Your task to perform on an android device: Open battery settings Image 0: 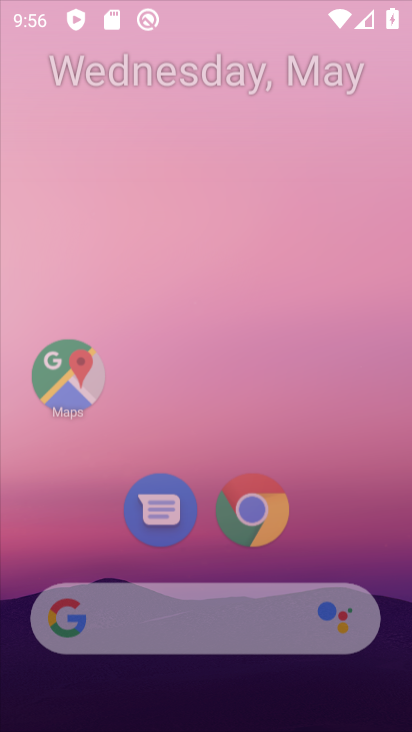
Step 0: drag from (278, 471) to (264, 146)
Your task to perform on an android device: Open battery settings Image 1: 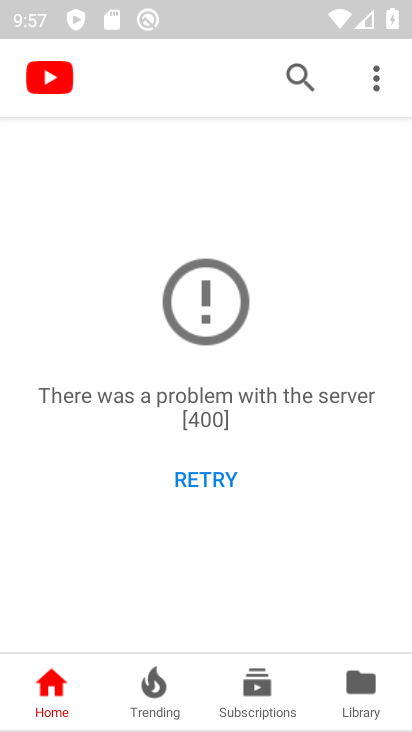
Step 1: press home button
Your task to perform on an android device: Open battery settings Image 2: 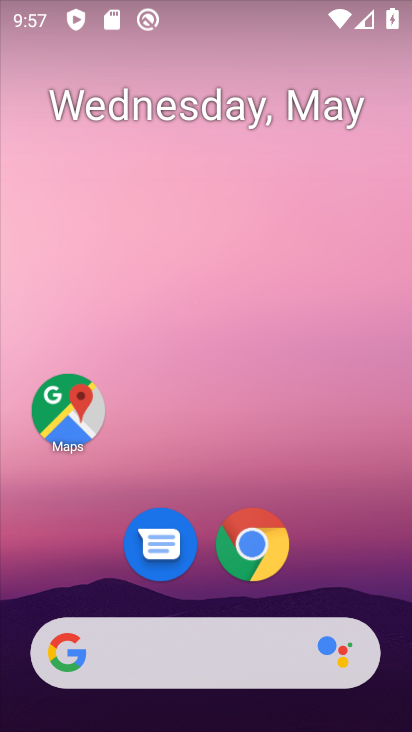
Step 2: drag from (300, 646) to (233, 9)
Your task to perform on an android device: Open battery settings Image 3: 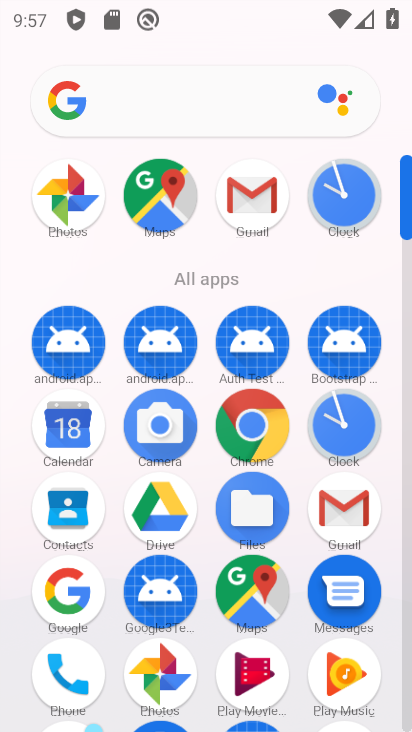
Step 3: drag from (189, 546) to (215, 157)
Your task to perform on an android device: Open battery settings Image 4: 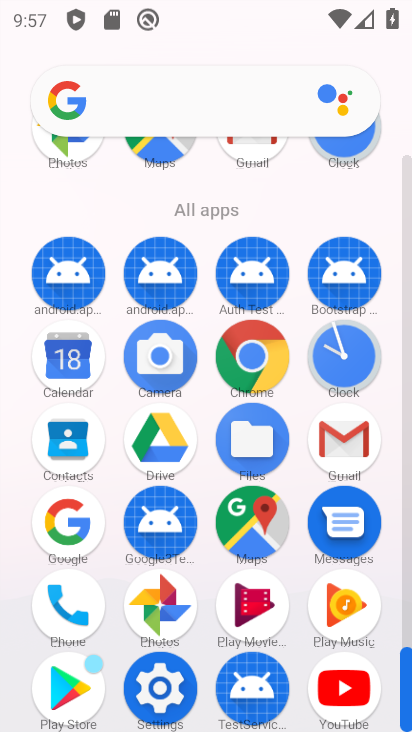
Step 4: click (173, 680)
Your task to perform on an android device: Open battery settings Image 5: 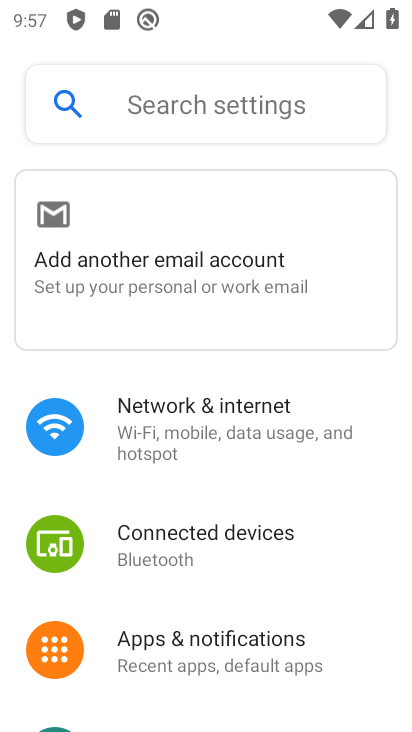
Step 5: drag from (226, 665) to (241, 419)
Your task to perform on an android device: Open battery settings Image 6: 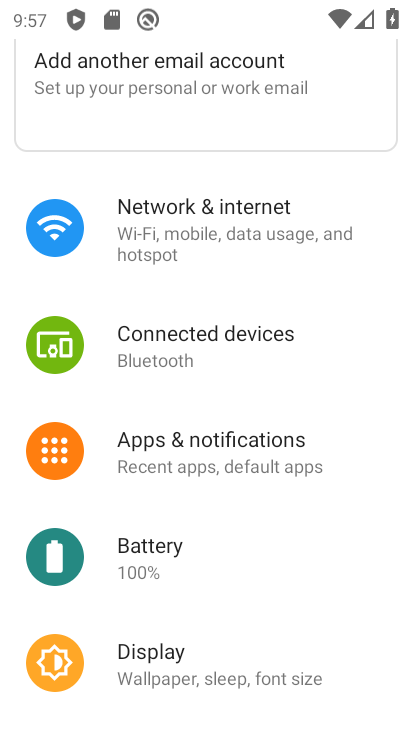
Step 6: click (184, 554)
Your task to perform on an android device: Open battery settings Image 7: 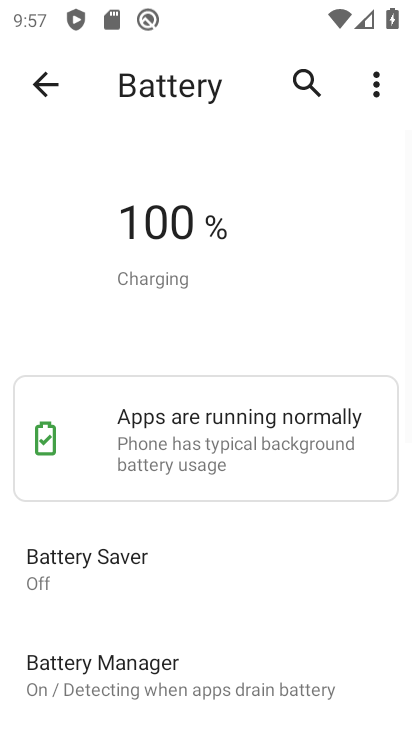
Step 7: task complete